Your task to perform on an android device: uninstall "Calculator" Image 0: 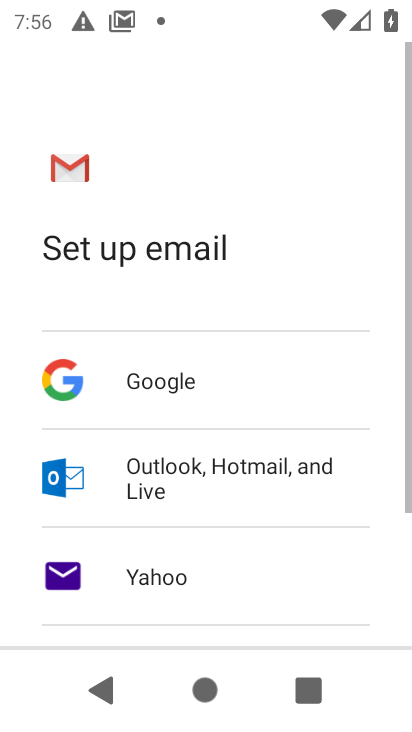
Step 0: press home button
Your task to perform on an android device: uninstall "Calculator" Image 1: 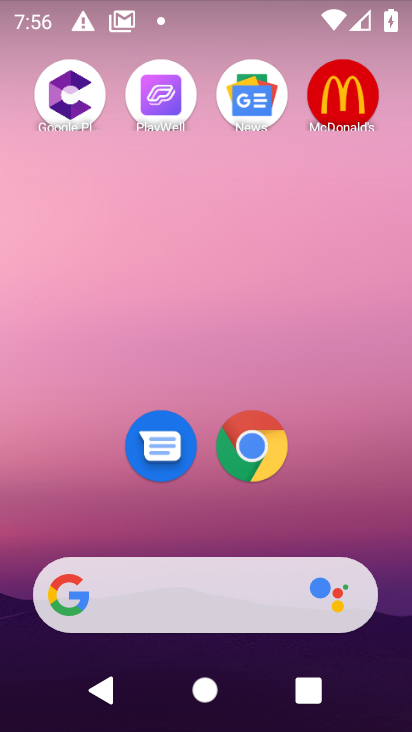
Step 1: drag from (222, 524) to (211, 76)
Your task to perform on an android device: uninstall "Calculator" Image 2: 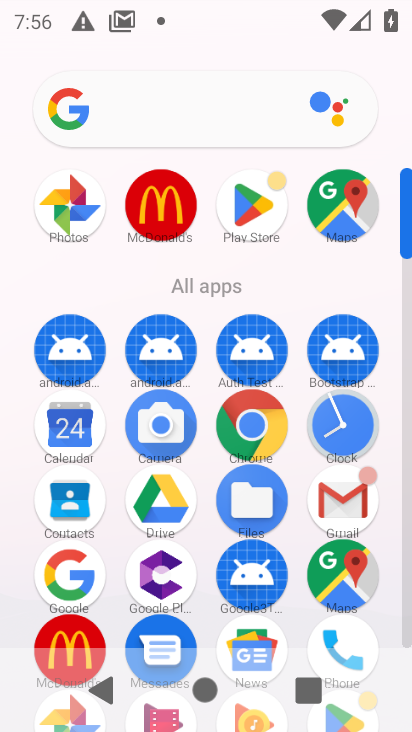
Step 2: click (256, 197)
Your task to perform on an android device: uninstall "Calculator" Image 3: 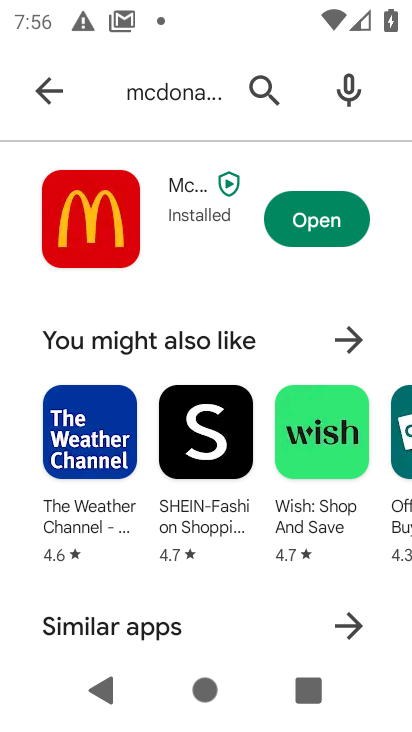
Step 3: click (257, 104)
Your task to perform on an android device: uninstall "Calculator" Image 4: 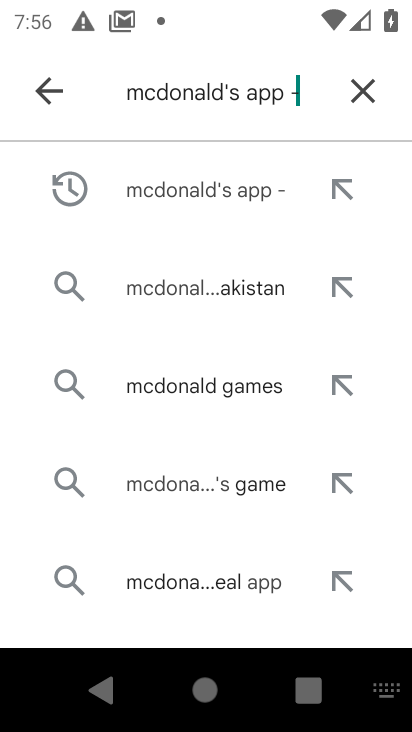
Step 4: click (358, 80)
Your task to perform on an android device: uninstall "Calculator" Image 5: 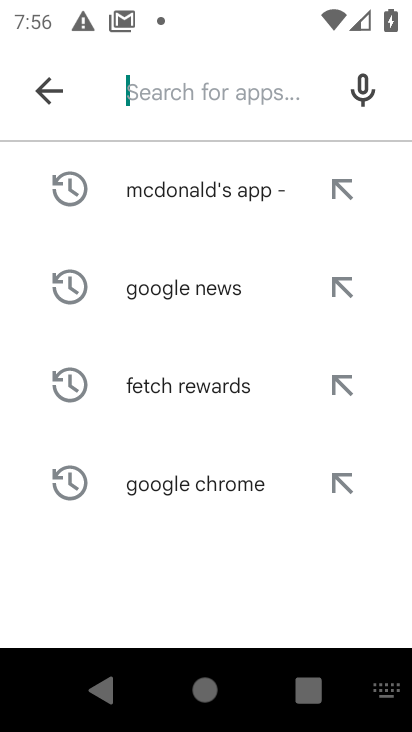
Step 5: type "Calculator"
Your task to perform on an android device: uninstall "Calculator" Image 6: 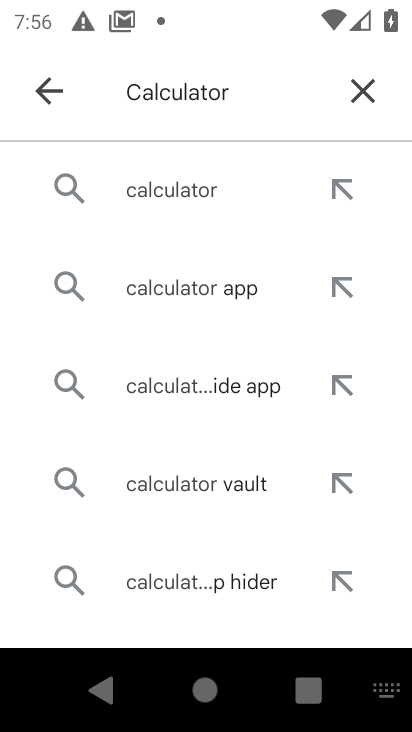
Step 6: click (179, 188)
Your task to perform on an android device: uninstall "Calculator" Image 7: 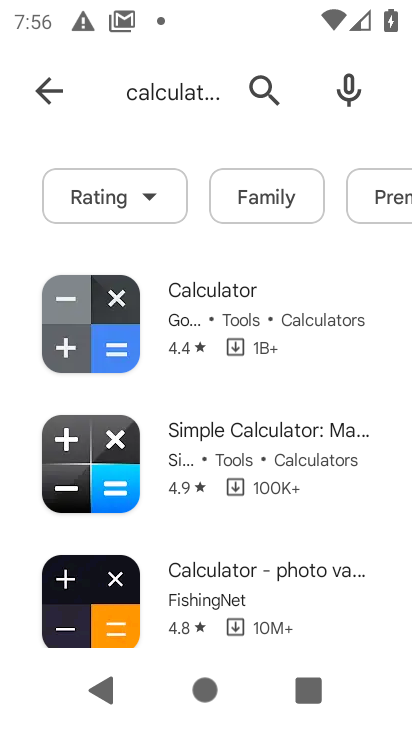
Step 7: click (243, 323)
Your task to perform on an android device: uninstall "Calculator" Image 8: 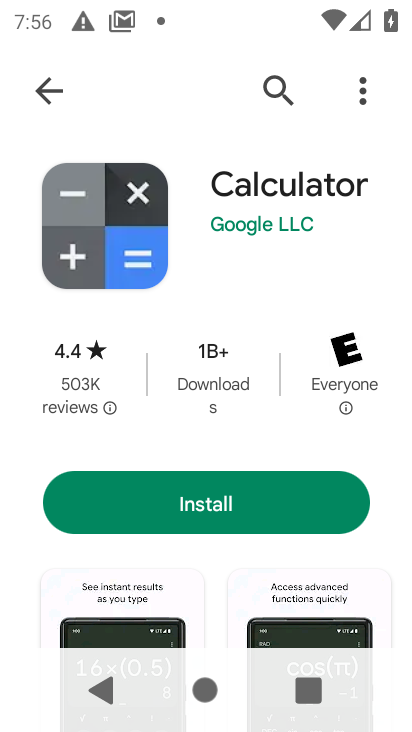
Step 8: task complete